Your task to perform on an android device: What's the weather? Image 0: 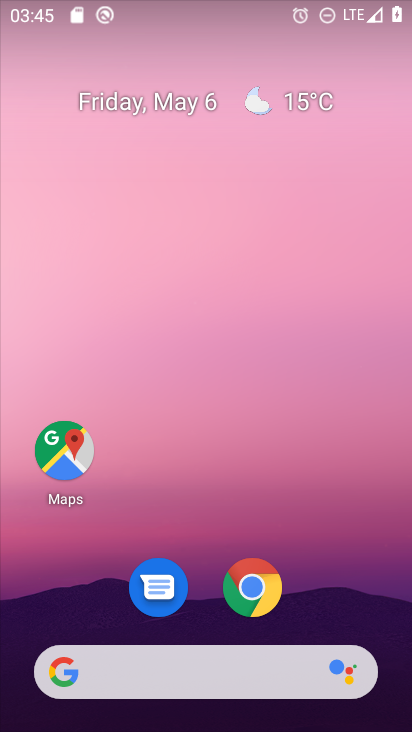
Step 0: click (304, 100)
Your task to perform on an android device: What's the weather? Image 1: 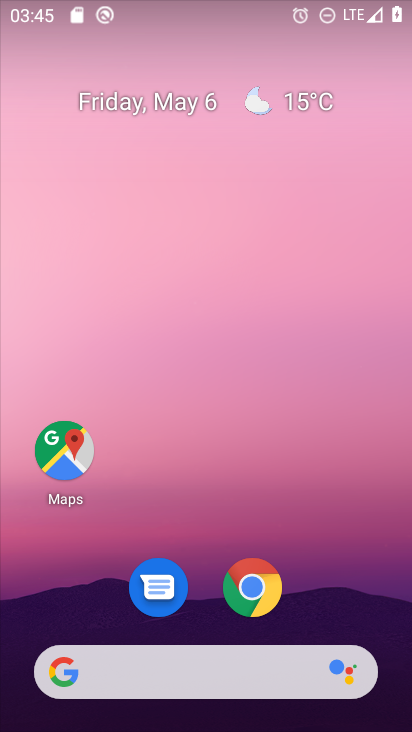
Step 1: click (255, 105)
Your task to perform on an android device: What's the weather? Image 2: 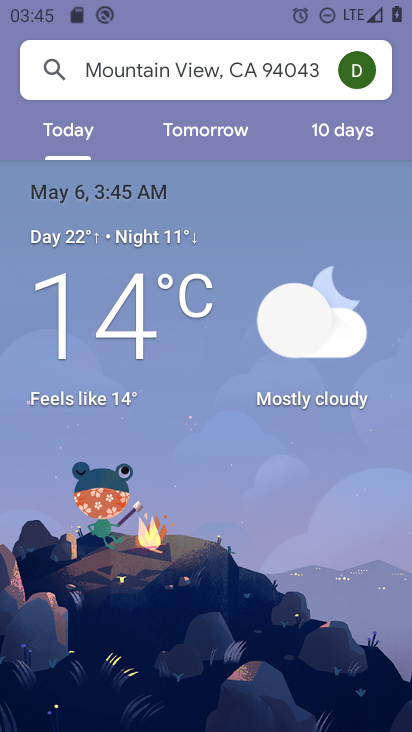
Step 2: task complete